Your task to perform on an android device: Do I have any events this weekend? Image 0: 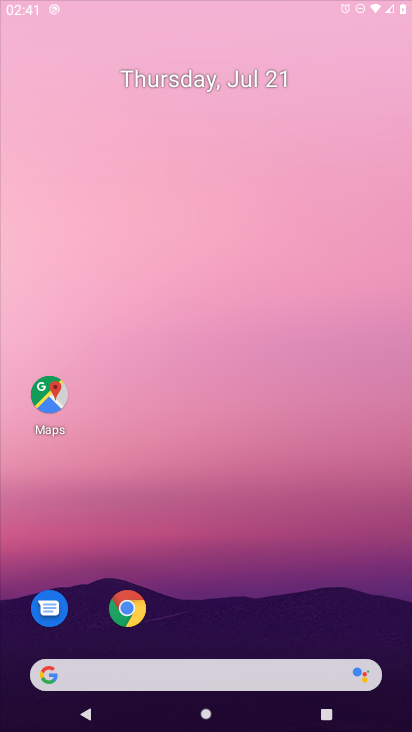
Step 0: press home button
Your task to perform on an android device: Do I have any events this weekend? Image 1: 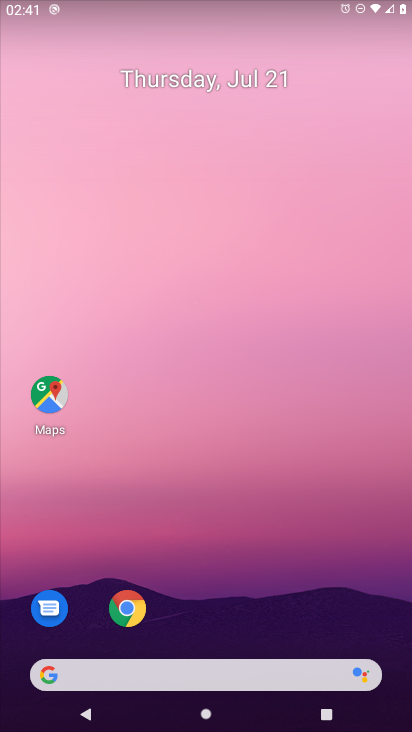
Step 1: drag from (228, 629) to (231, 32)
Your task to perform on an android device: Do I have any events this weekend? Image 2: 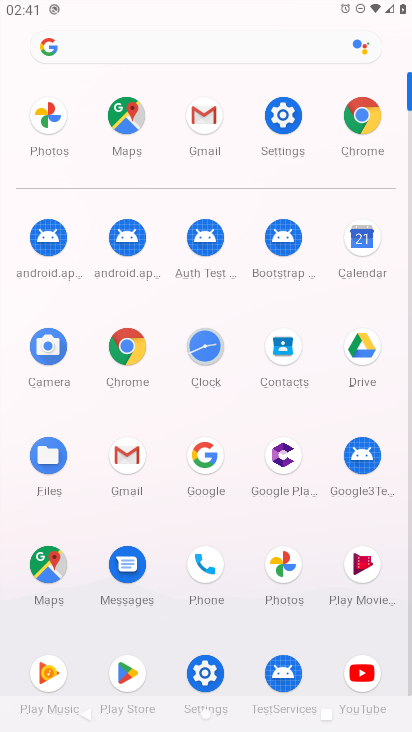
Step 2: click (367, 244)
Your task to perform on an android device: Do I have any events this weekend? Image 3: 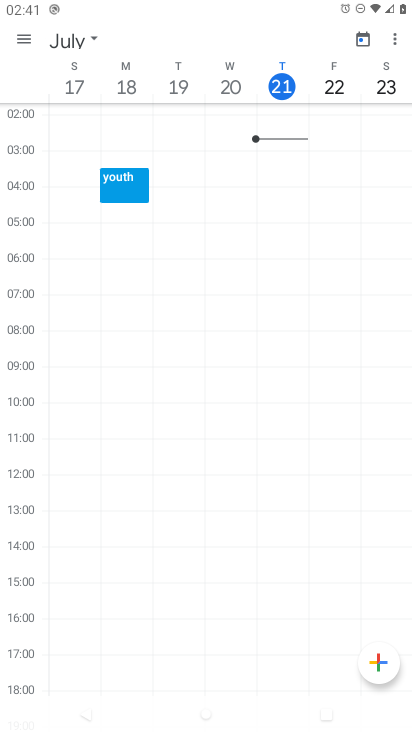
Step 3: drag from (353, 92) to (161, 85)
Your task to perform on an android device: Do I have any events this weekend? Image 4: 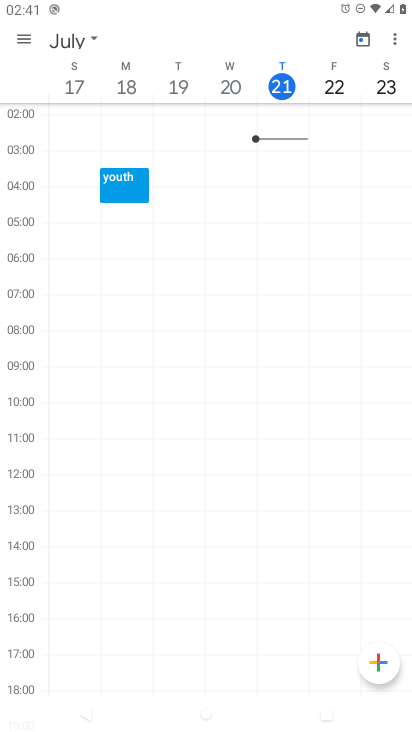
Step 4: click (388, 88)
Your task to perform on an android device: Do I have any events this weekend? Image 5: 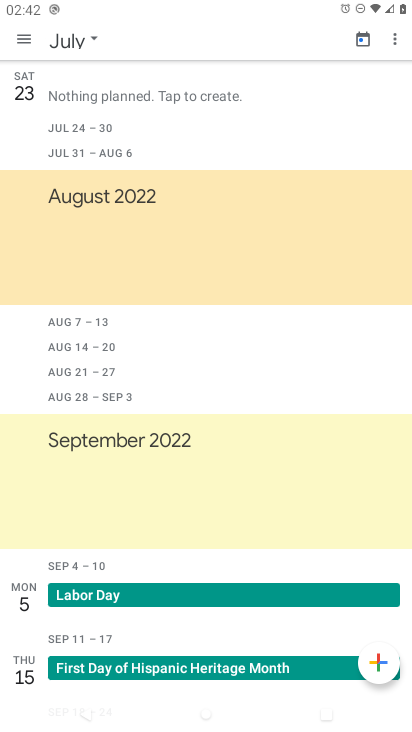
Step 5: click (80, 43)
Your task to perform on an android device: Do I have any events this weekend? Image 6: 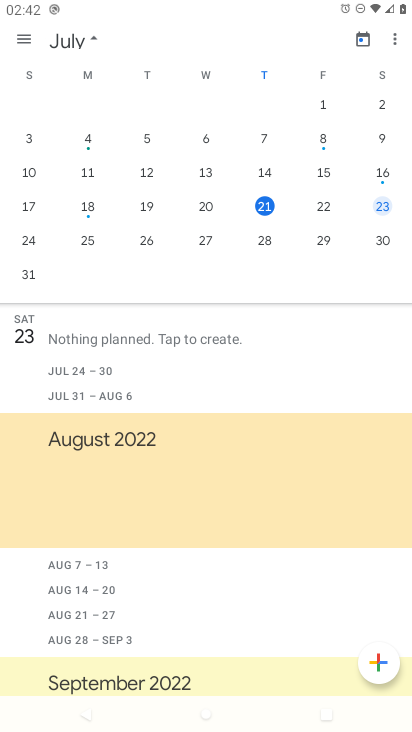
Step 6: task complete